Your task to perform on an android device: turn off picture-in-picture Image 0: 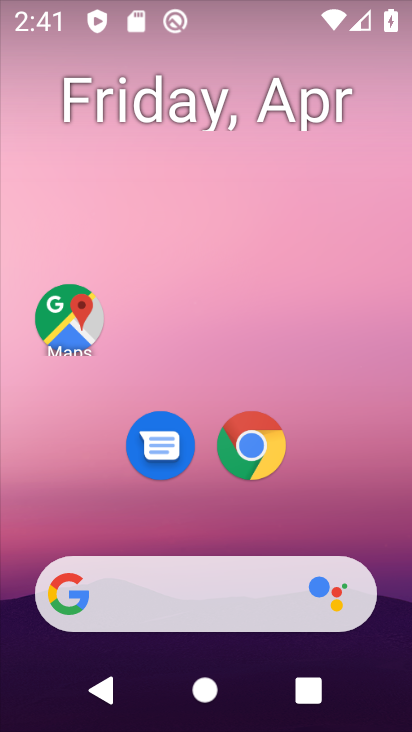
Step 0: click (256, 445)
Your task to perform on an android device: turn off picture-in-picture Image 1: 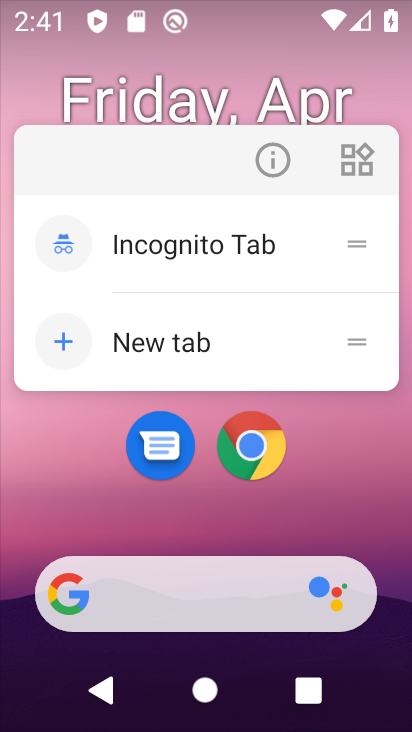
Step 1: click (275, 168)
Your task to perform on an android device: turn off picture-in-picture Image 2: 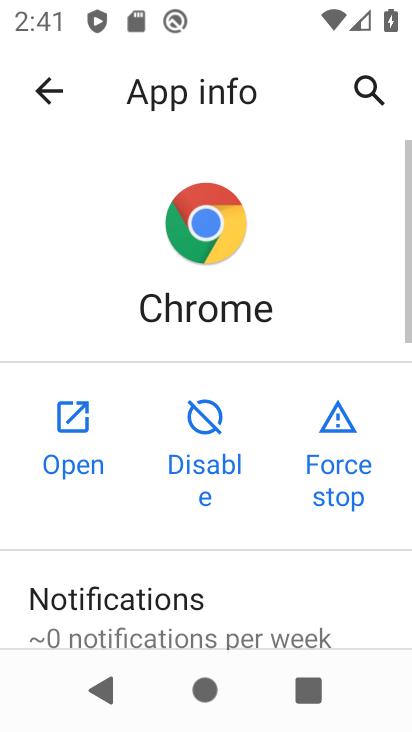
Step 2: drag from (258, 584) to (303, 458)
Your task to perform on an android device: turn off picture-in-picture Image 3: 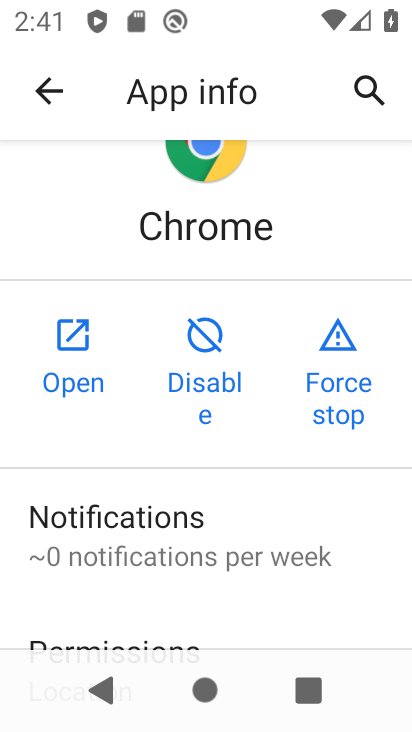
Step 3: drag from (248, 626) to (297, 510)
Your task to perform on an android device: turn off picture-in-picture Image 4: 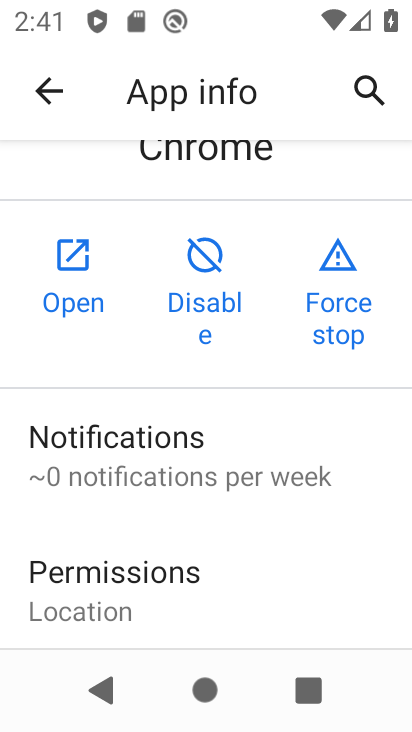
Step 4: drag from (258, 601) to (306, 495)
Your task to perform on an android device: turn off picture-in-picture Image 5: 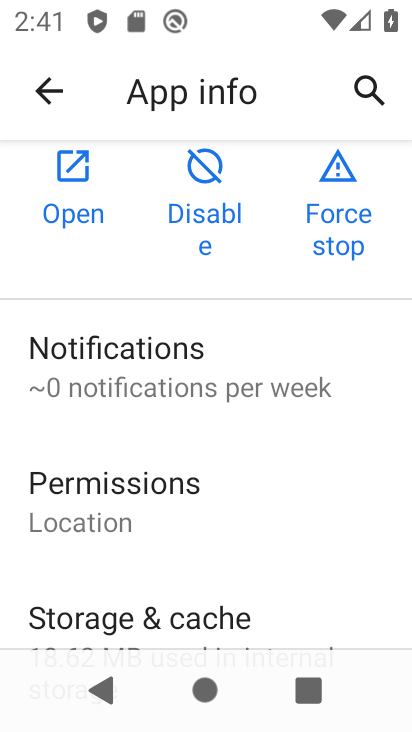
Step 5: drag from (270, 600) to (334, 497)
Your task to perform on an android device: turn off picture-in-picture Image 6: 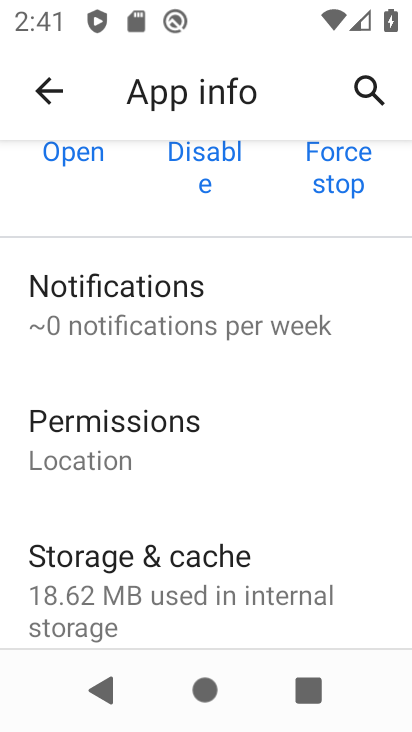
Step 6: drag from (276, 617) to (312, 488)
Your task to perform on an android device: turn off picture-in-picture Image 7: 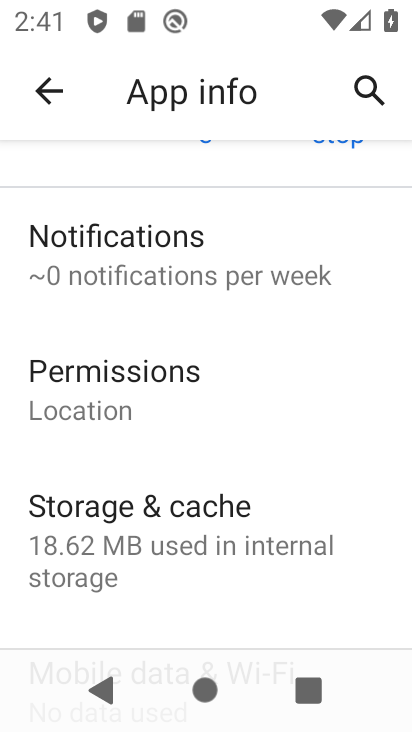
Step 7: drag from (202, 606) to (263, 508)
Your task to perform on an android device: turn off picture-in-picture Image 8: 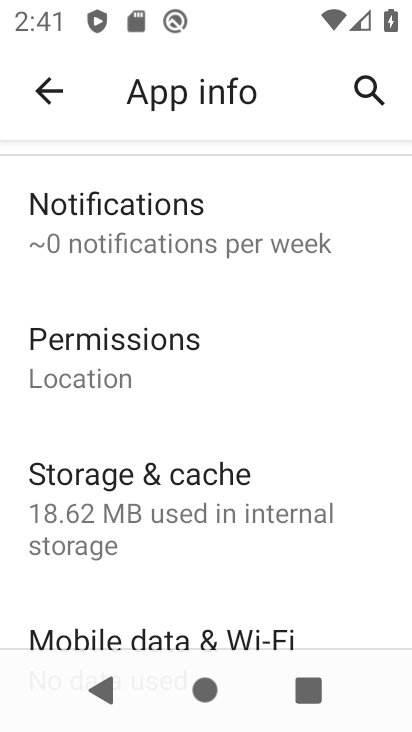
Step 8: drag from (228, 577) to (289, 428)
Your task to perform on an android device: turn off picture-in-picture Image 9: 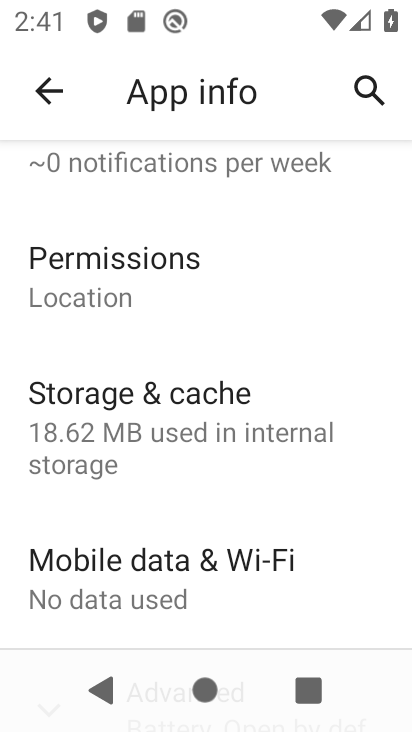
Step 9: drag from (249, 595) to (304, 491)
Your task to perform on an android device: turn off picture-in-picture Image 10: 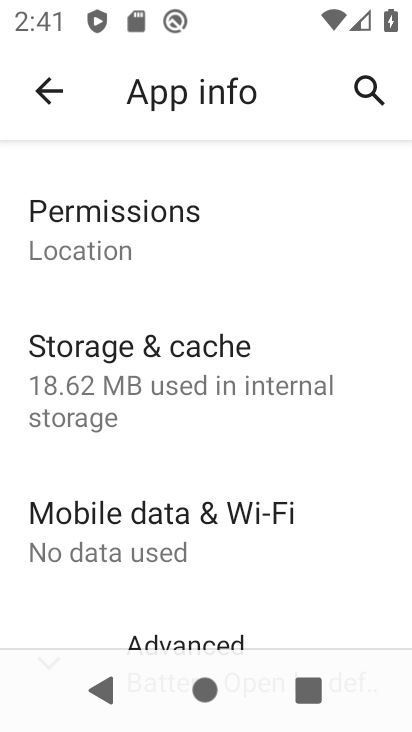
Step 10: drag from (252, 585) to (314, 475)
Your task to perform on an android device: turn off picture-in-picture Image 11: 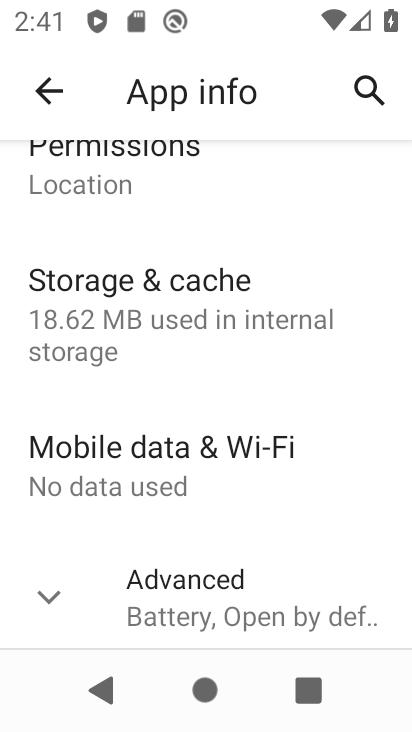
Step 11: click (245, 607)
Your task to perform on an android device: turn off picture-in-picture Image 12: 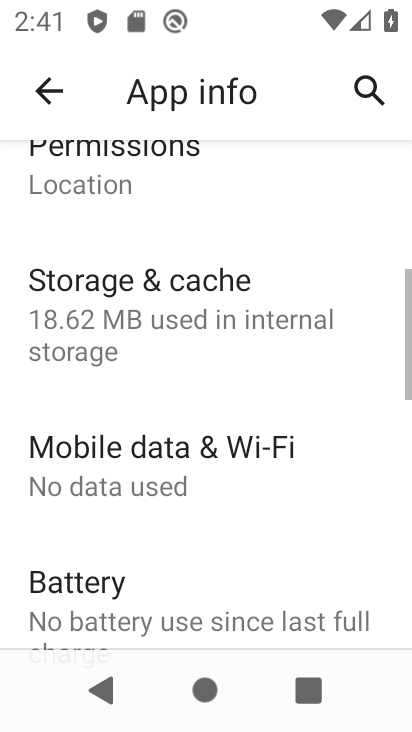
Step 12: drag from (205, 605) to (252, 532)
Your task to perform on an android device: turn off picture-in-picture Image 13: 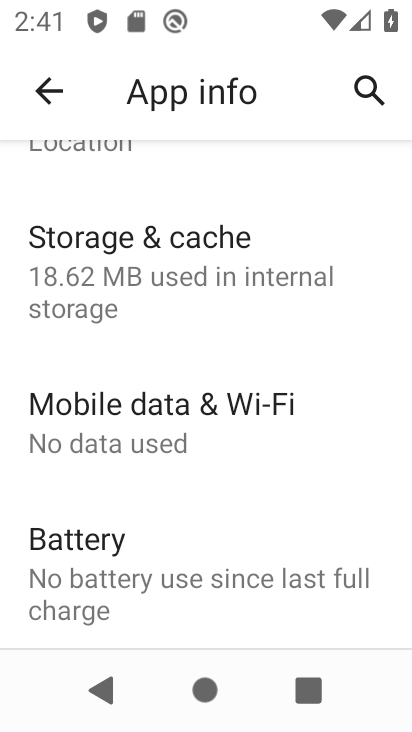
Step 13: drag from (225, 597) to (273, 518)
Your task to perform on an android device: turn off picture-in-picture Image 14: 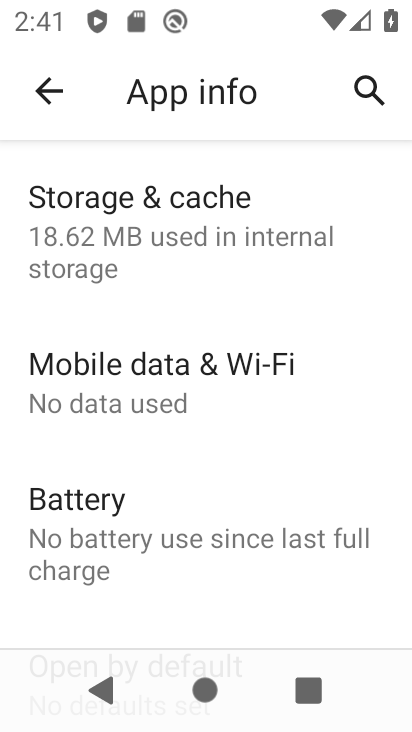
Step 14: drag from (226, 615) to (307, 492)
Your task to perform on an android device: turn off picture-in-picture Image 15: 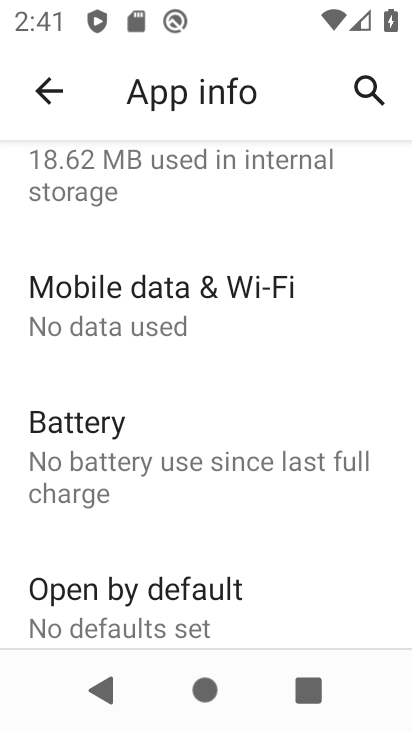
Step 15: drag from (255, 556) to (366, 393)
Your task to perform on an android device: turn off picture-in-picture Image 16: 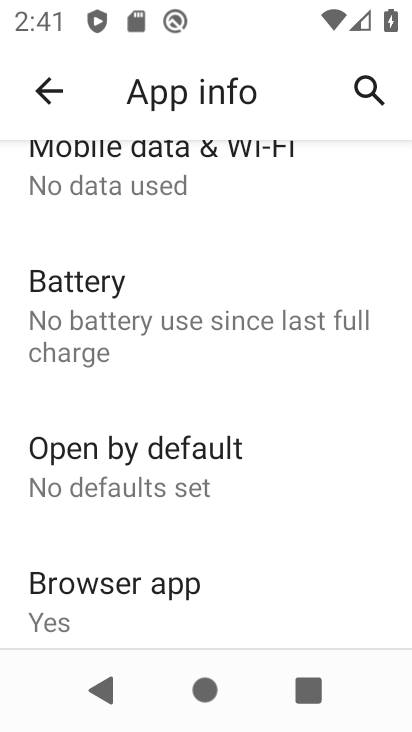
Step 16: drag from (284, 546) to (330, 401)
Your task to perform on an android device: turn off picture-in-picture Image 17: 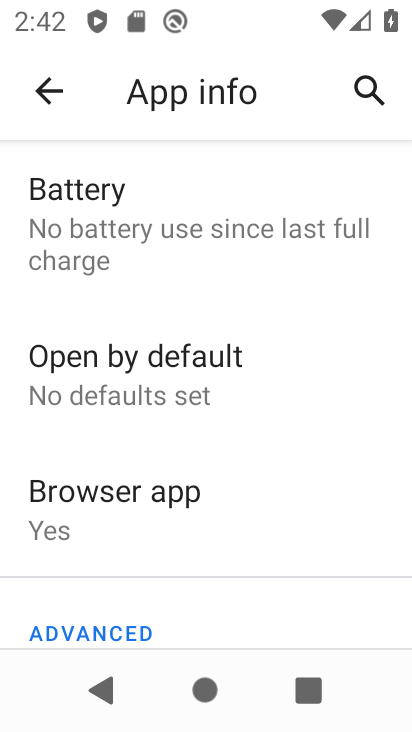
Step 17: drag from (231, 550) to (310, 409)
Your task to perform on an android device: turn off picture-in-picture Image 18: 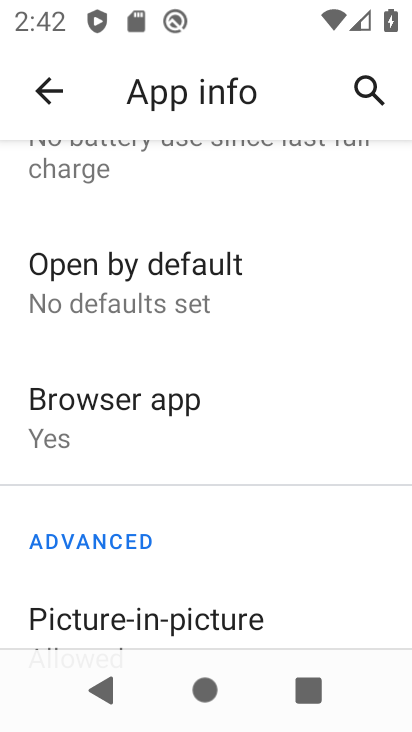
Step 18: drag from (186, 586) to (264, 440)
Your task to perform on an android device: turn off picture-in-picture Image 19: 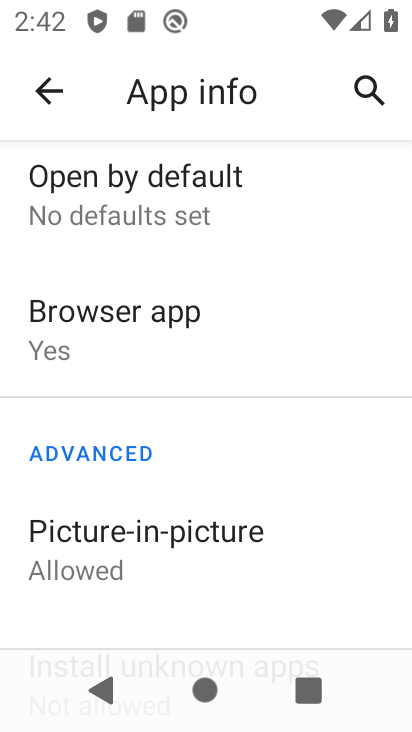
Step 19: click (204, 526)
Your task to perform on an android device: turn off picture-in-picture Image 20: 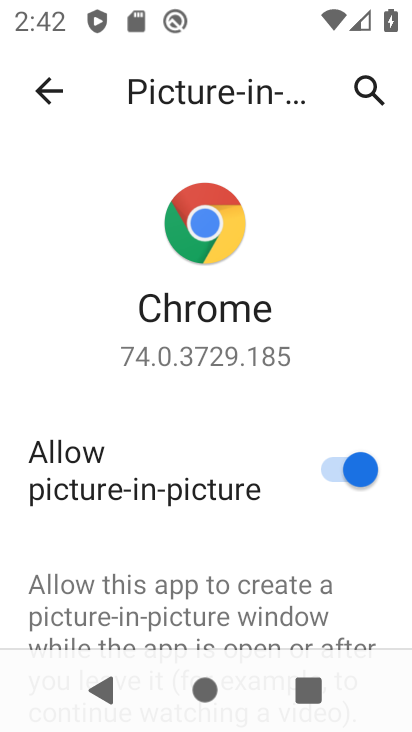
Step 20: click (358, 477)
Your task to perform on an android device: turn off picture-in-picture Image 21: 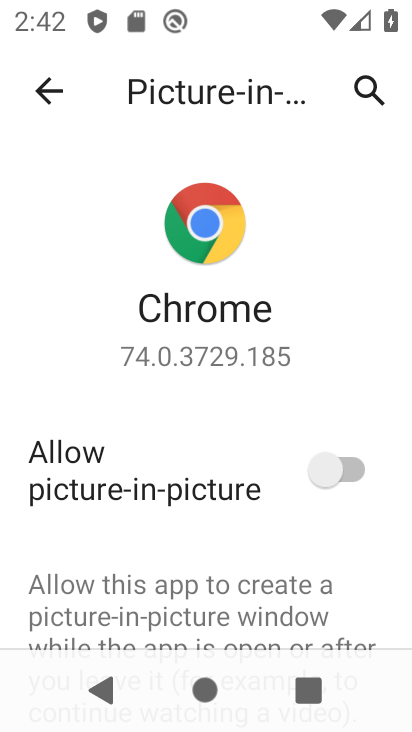
Step 21: task complete